Your task to perform on an android device: set the timer Image 0: 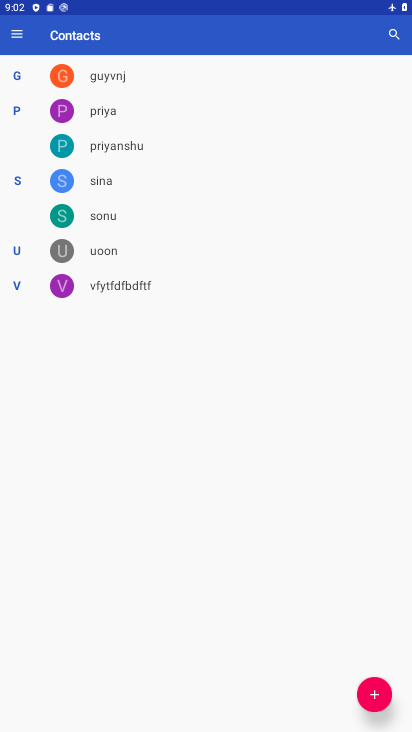
Step 0: press home button
Your task to perform on an android device: set the timer Image 1: 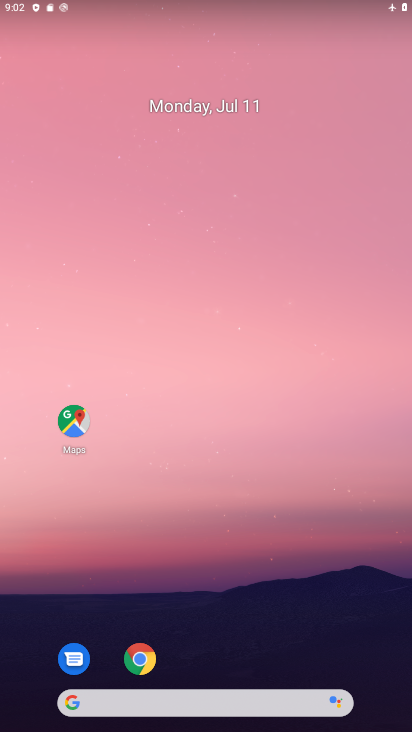
Step 1: drag from (216, 672) to (222, 282)
Your task to perform on an android device: set the timer Image 2: 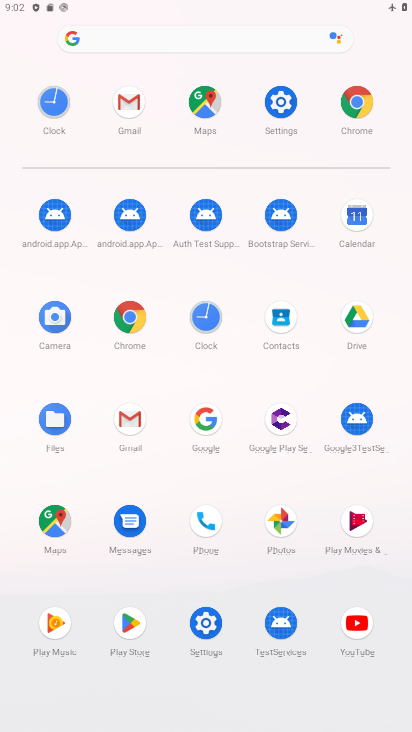
Step 2: click (206, 325)
Your task to perform on an android device: set the timer Image 3: 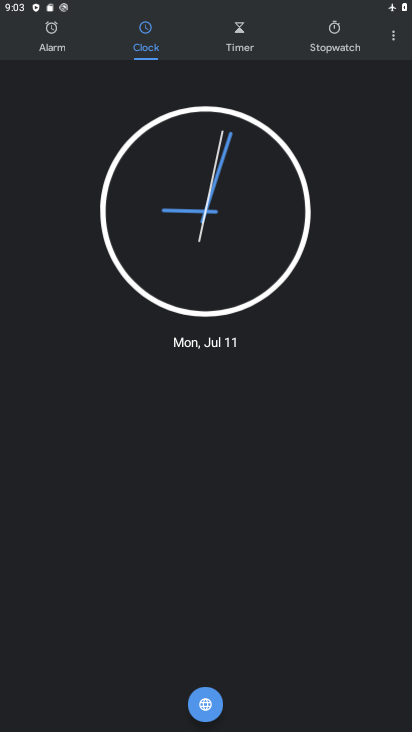
Step 3: click (236, 49)
Your task to perform on an android device: set the timer Image 4: 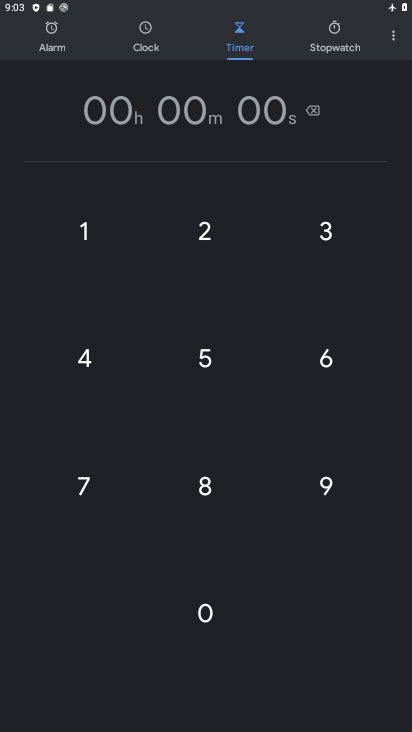
Step 4: type "11"
Your task to perform on an android device: set the timer Image 5: 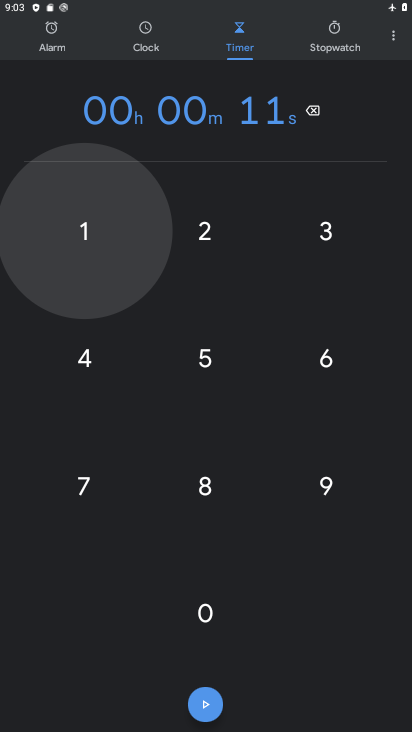
Step 5: click (206, 707)
Your task to perform on an android device: set the timer Image 6: 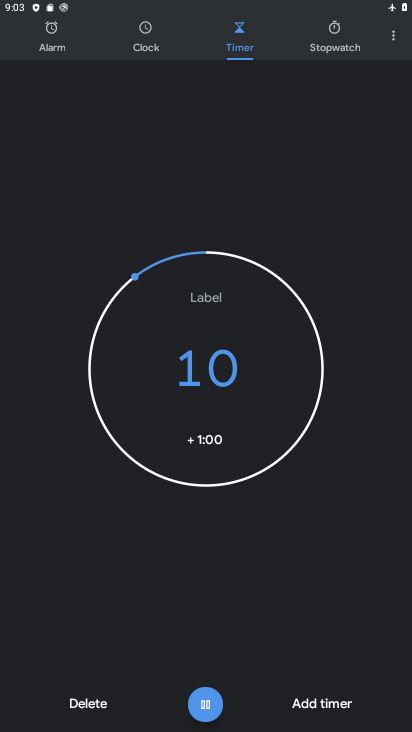
Step 6: task complete